Your task to perform on an android device: turn off data saver in the chrome app Image 0: 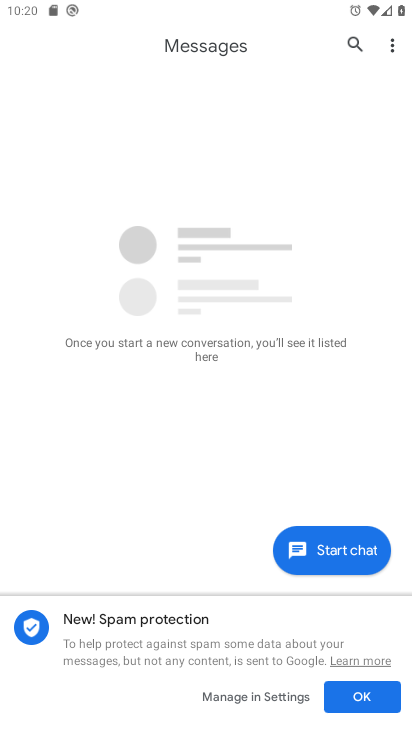
Step 0: click (352, 183)
Your task to perform on an android device: turn off data saver in the chrome app Image 1: 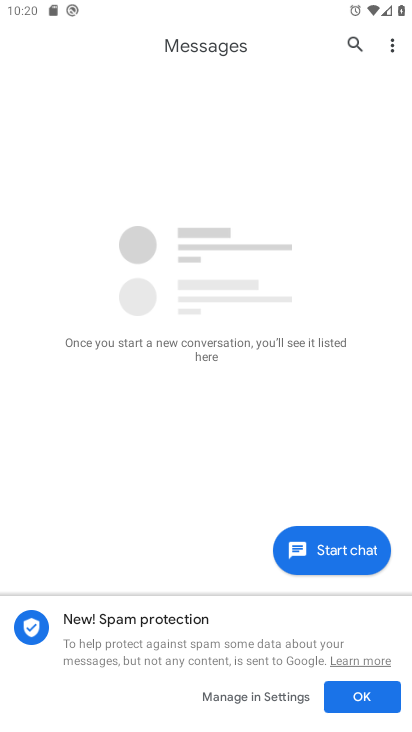
Step 1: press home button
Your task to perform on an android device: turn off data saver in the chrome app Image 2: 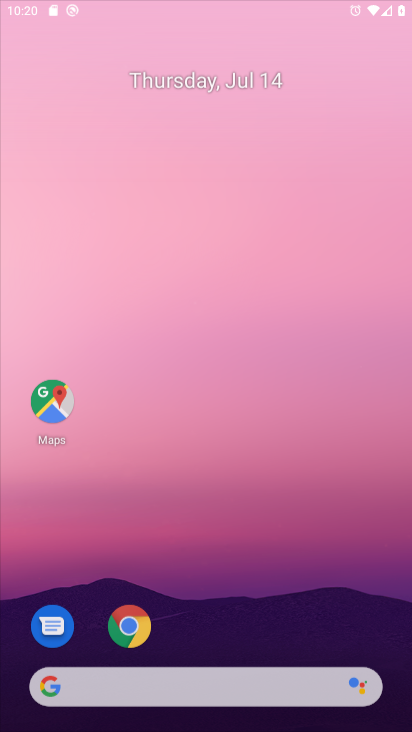
Step 2: drag from (199, 581) to (105, 16)
Your task to perform on an android device: turn off data saver in the chrome app Image 3: 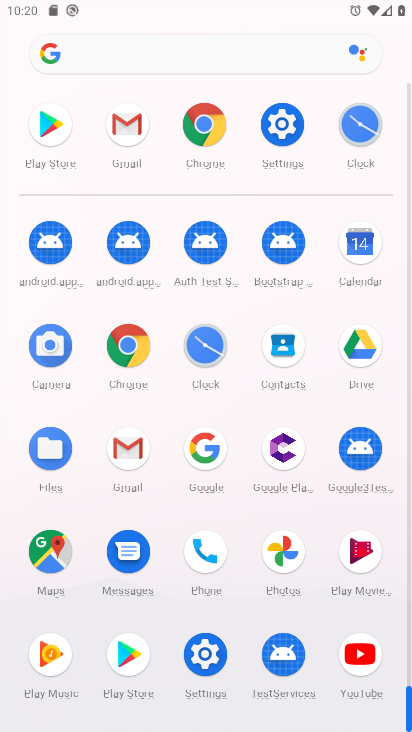
Step 3: drag from (237, 593) to (256, 258)
Your task to perform on an android device: turn off data saver in the chrome app Image 4: 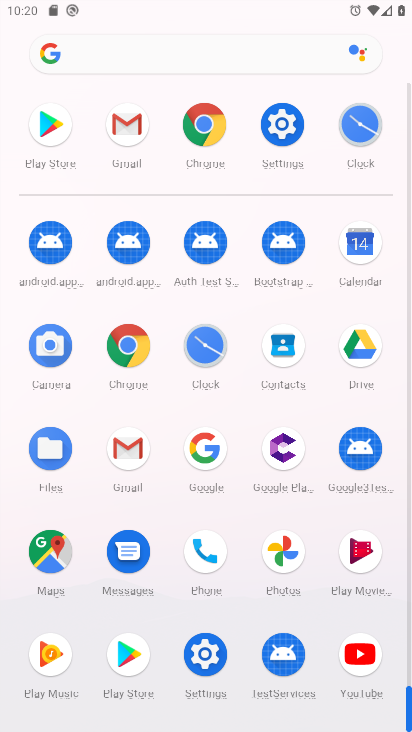
Step 4: click (126, 350)
Your task to perform on an android device: turn off data saver in the chrome app Image 5: 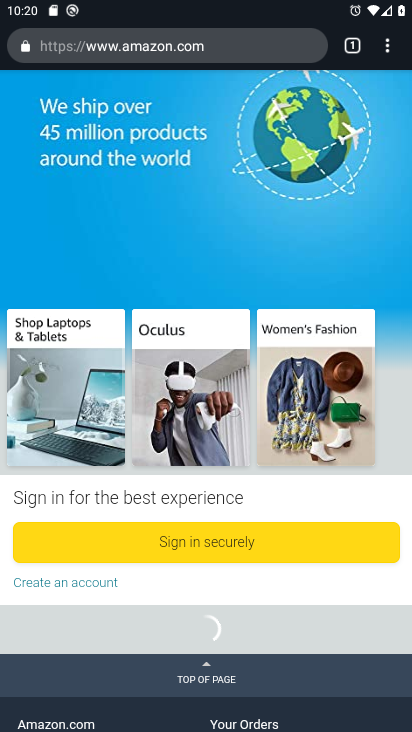
Step 5: drag from (201, 602) to (250, 249)
Your task to perform on an android device: turn off data saver in the chrome app Image 6: 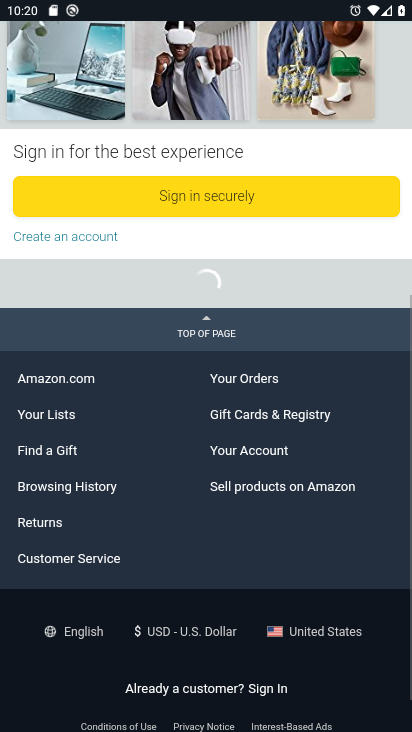
Step 6: drag from (260, 224) to (315, 667)
Your task to perform on an android device: turn off data saver in the chrome app Image 7: 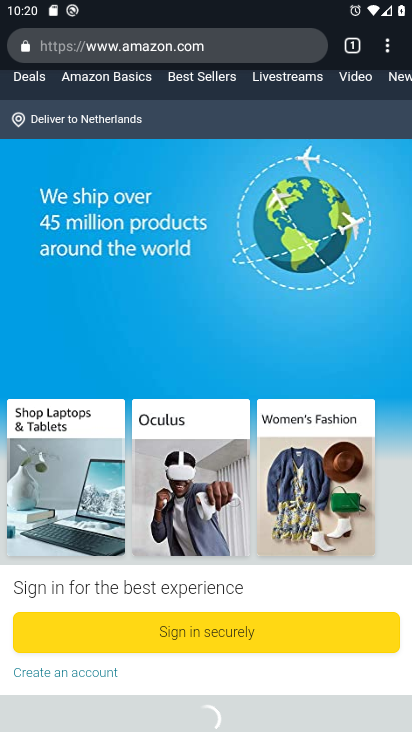
Step 7: click (389, 39)
Your task to perform on an android device: turn off data saver in the chrome app Image 8: 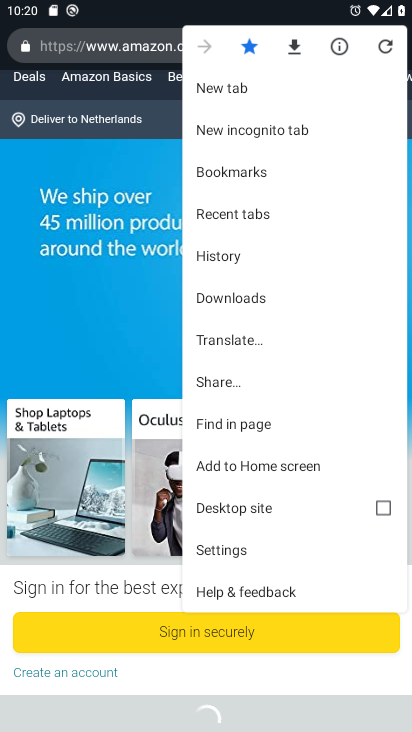
Step 8: click (256, 548)
Your task to perform on an android device: turn off data saver in the chrome app Image 9: 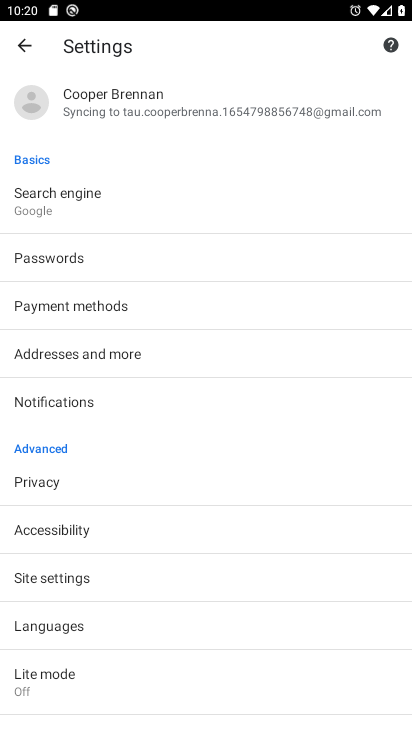
Step 9: drag from (178, 592) to (202, 319)
Your task to perform on an android device: turn off data saver in the chrome app Image 10: 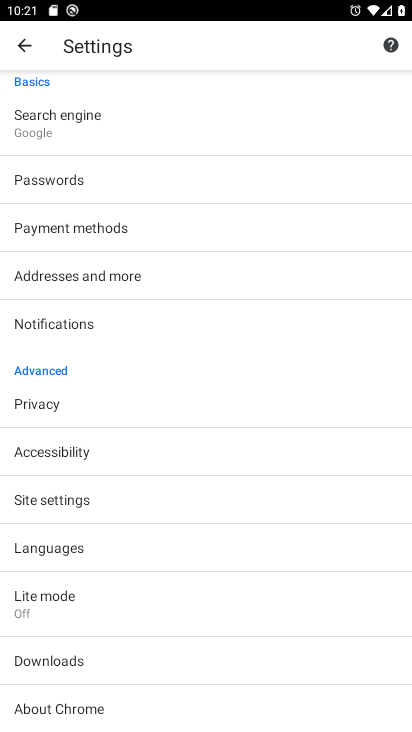
Step 10: click (106, 593)
Your task to perform on an android device: turn off data saver in the chrome app Image 11: 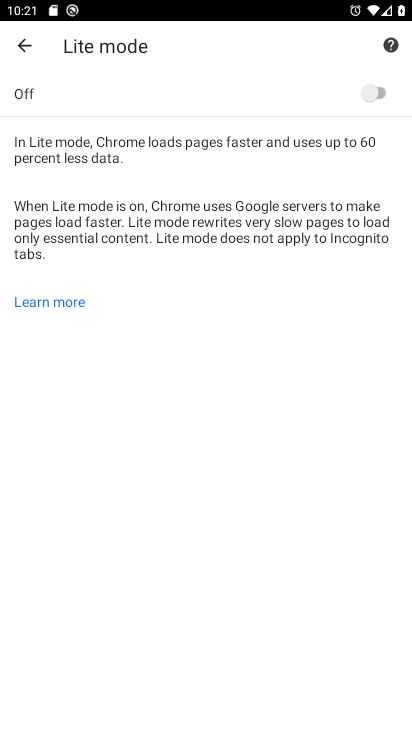
Step 11: task complete